Your task to perform on an android device: open chrome privacy settings Image 0: 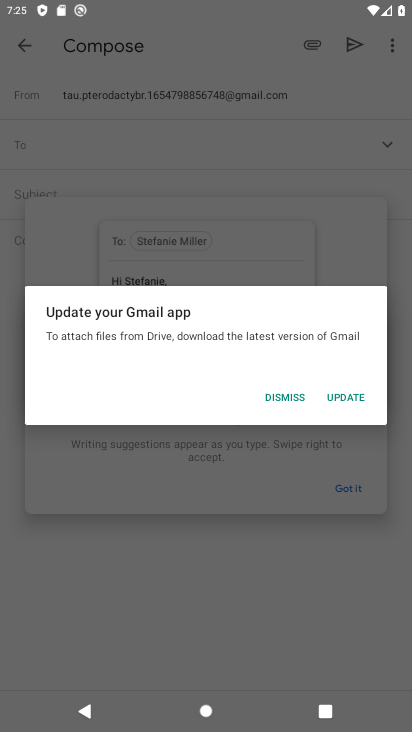
Step 0: press home button
Your task to perform on an android device: open chrome privacy settings Image 1: 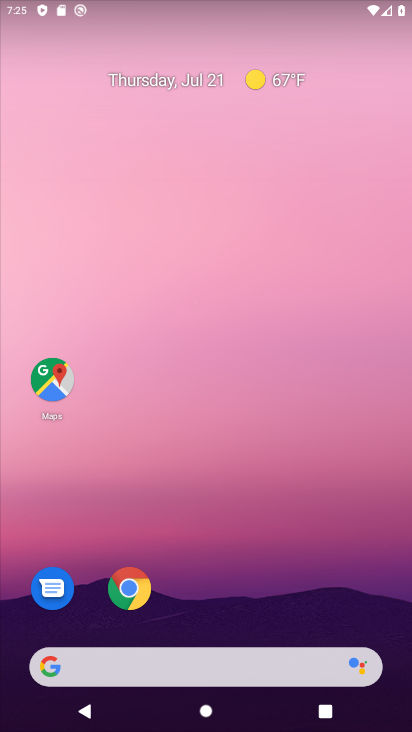
Step 1: click (136, 589)
Your task to perform on an android device: open chrome privacy settings Image 2: 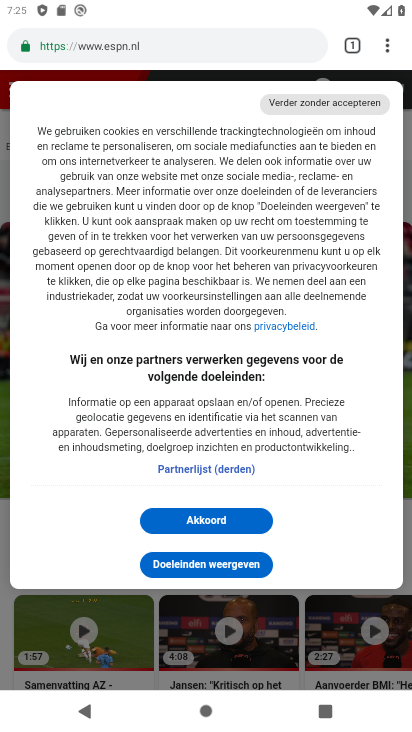
Step 2: click (386, 45)
Your task to perform on an android device: open chrome privacy settings Image 3: 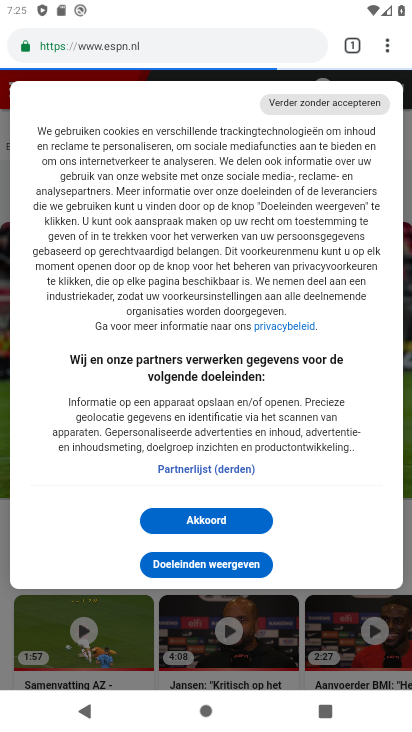
Step 3: click (386, 45)
Your task to perform on an android device: open chrome privacy settings Image 4: 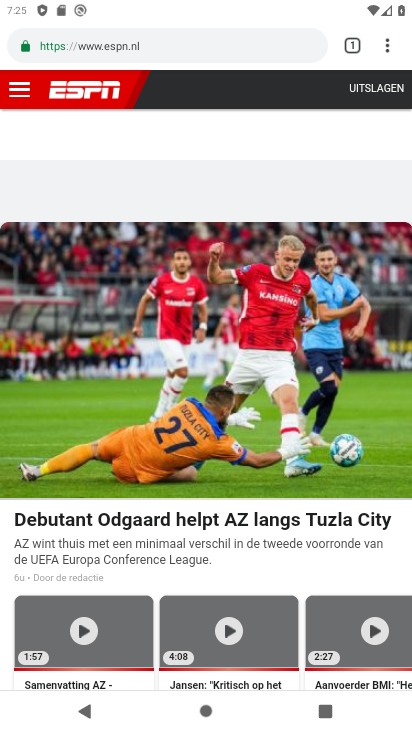
Step 4: click (386, 45)
Your task to perform on an android device: open chrome privacy settings Image 5: 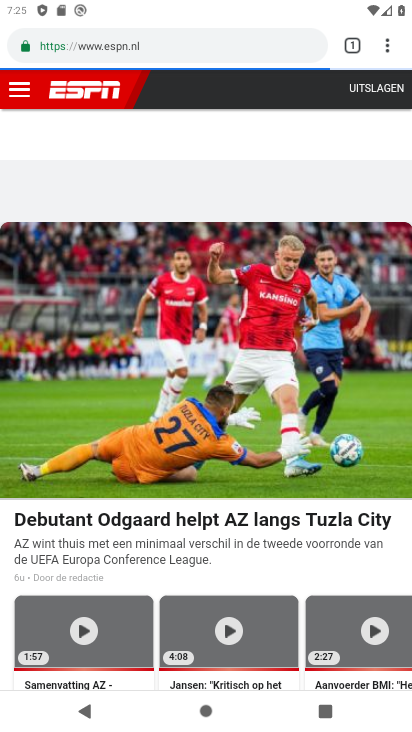
Step 5: click (386, 45)
Your task to perform on an android device: open chrome privacy settings Image 6: 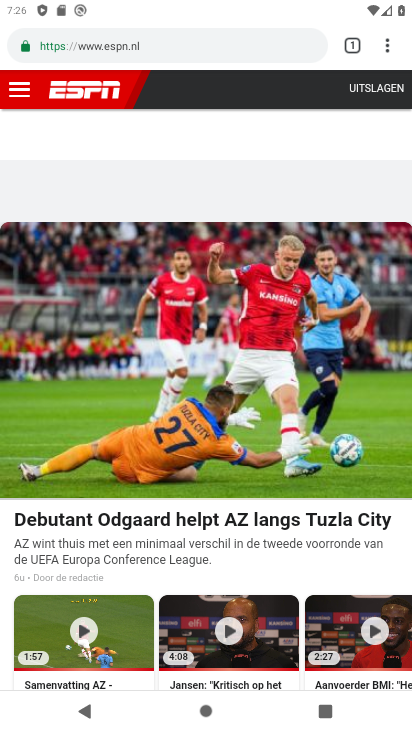
Step 6: click (386, 45)
Your task to perform on an android device: open chrome privacy settings Image 7: 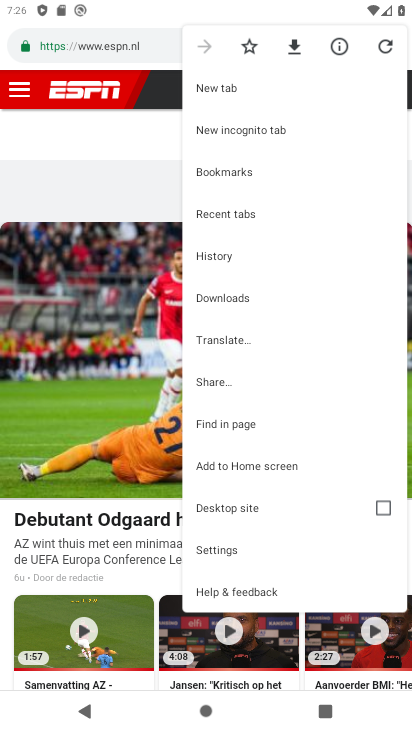
Step 7: click (228, 548)
Your task to perform on an android device: open chrome privacy settings Image 8: 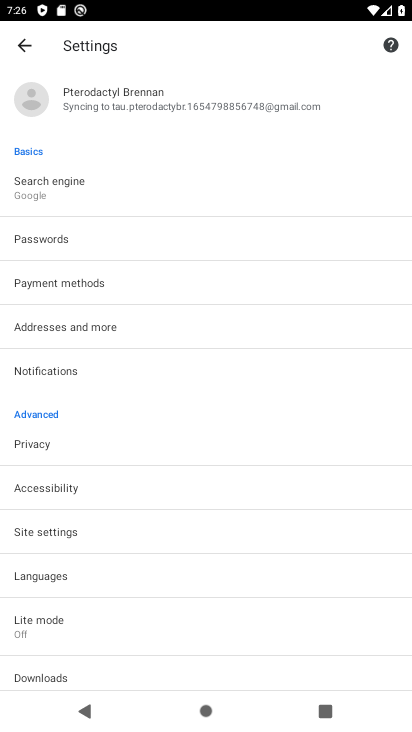
Step 8: click (101, 447)
Your task to perform on an android device: open chrome privacy settings Image 9: 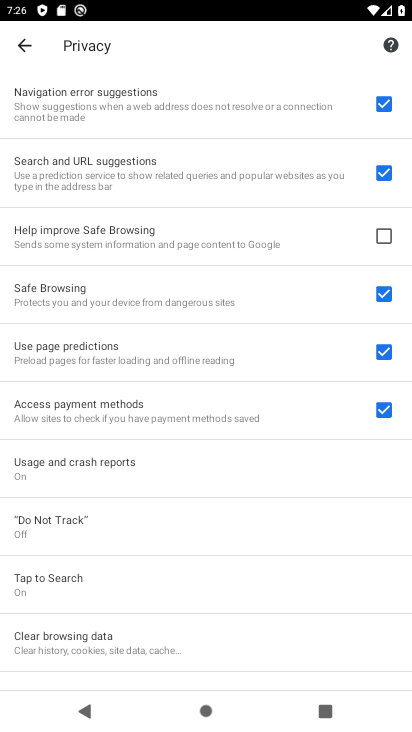
Step 9: task complete